Your task to perform on an android device: Open Chrome and go to settings Image 0: 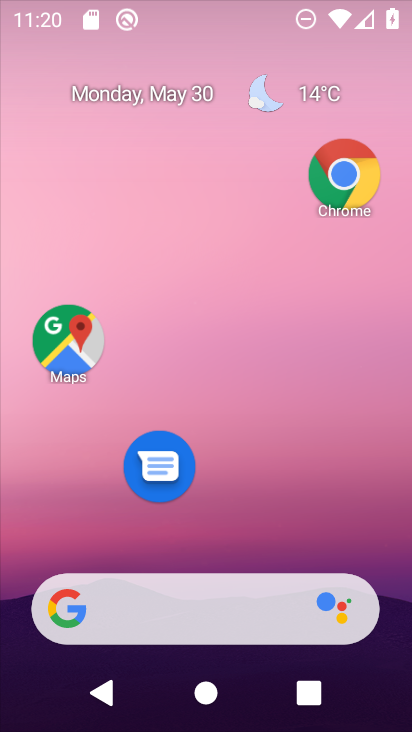
Step 0: click (249, 595)
Your task to perform on an android device: Open Chrome and go to settings Image 1: 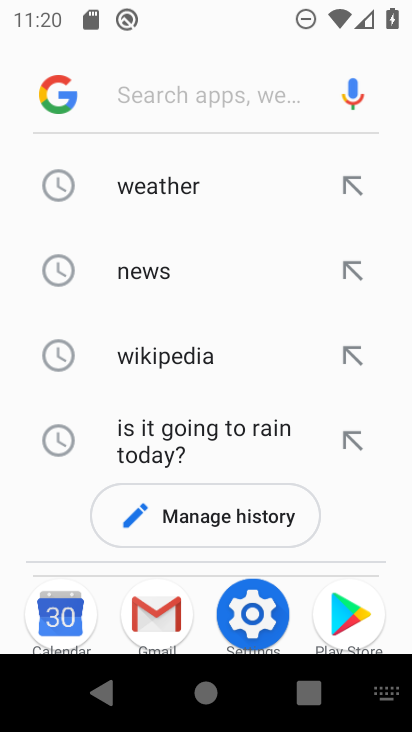
Step 1: press home button
Your task to perform on an android device: Open Chrome and go to settings Image 2: 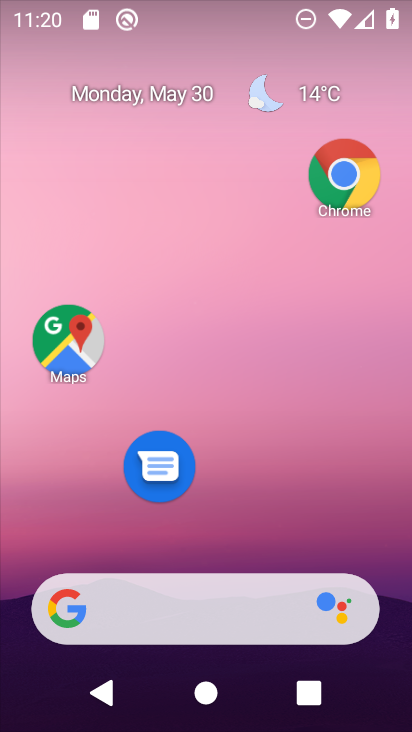
Step 2: click (358, 159)
Your task to perform on an android device: Open Chrome and go to settings Image 3: 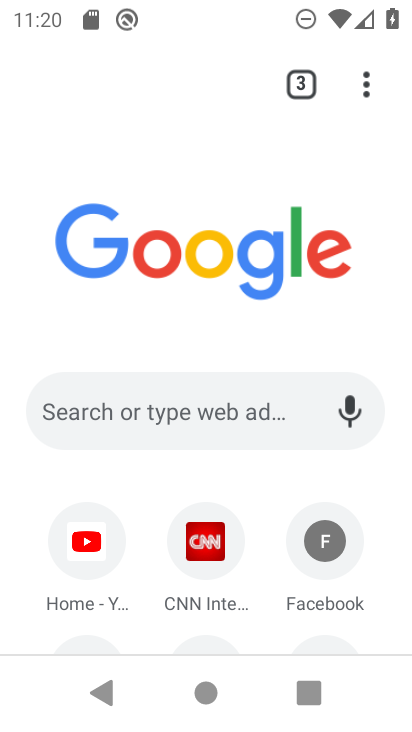
Step 3: click (355, 69)
Your task to perform on an android device: Open Chrome and go to settings Image 4: 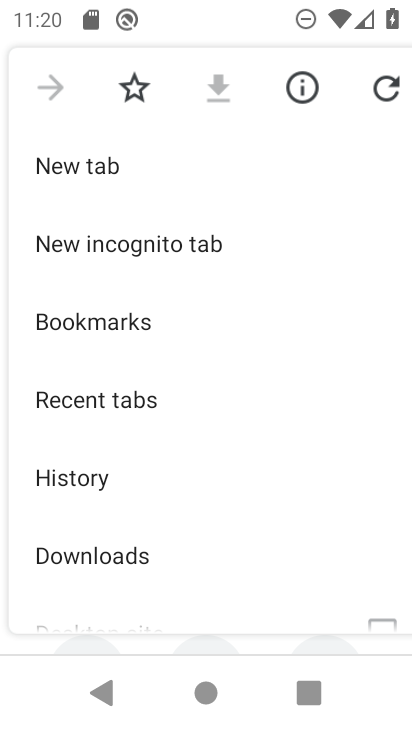
Step 4: drag from (177, 524) to (137, 229)
Your task to perform on an android device: Open Chrome and go to settings Image 5: 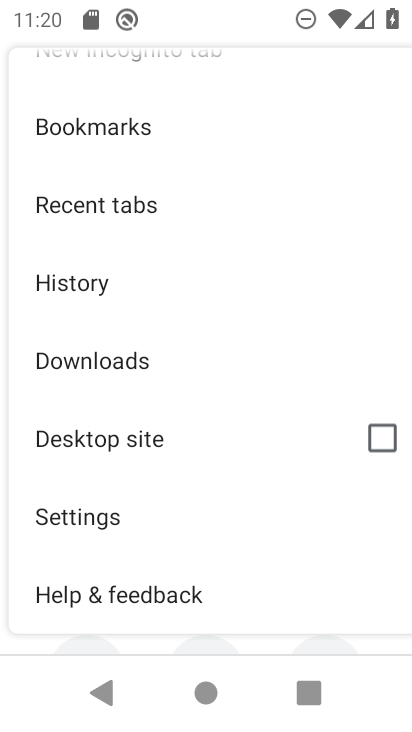
Step 5: click (148, 504)
Your task to perform on an android device: Open Chrome and go to settings Image 6: 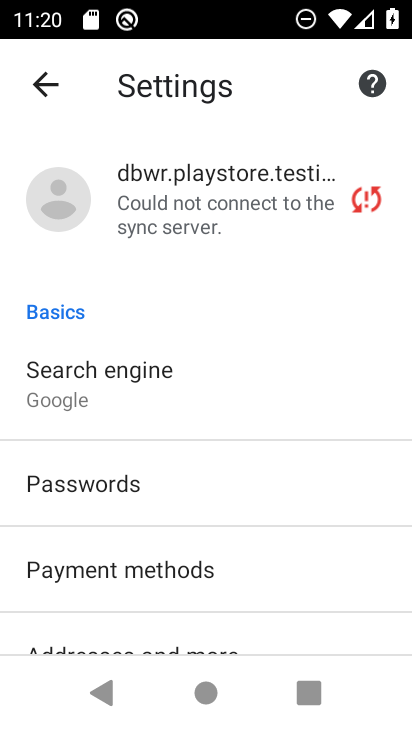
Step 6: task complete